Your task to perform on an android device: Open Yahoo.com Image 0: 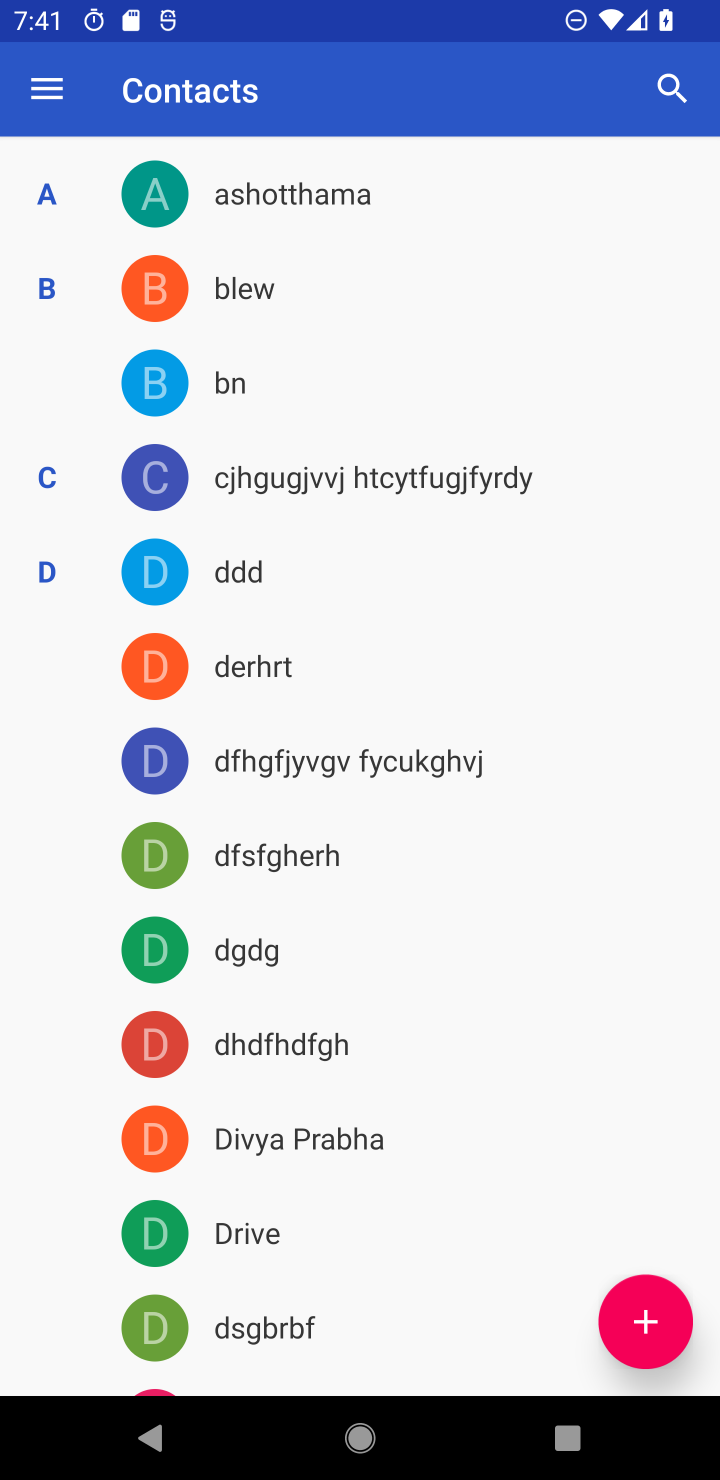
Step 0: press home button
Your task to perform on an android device: Open Yahoo.com Image 1: 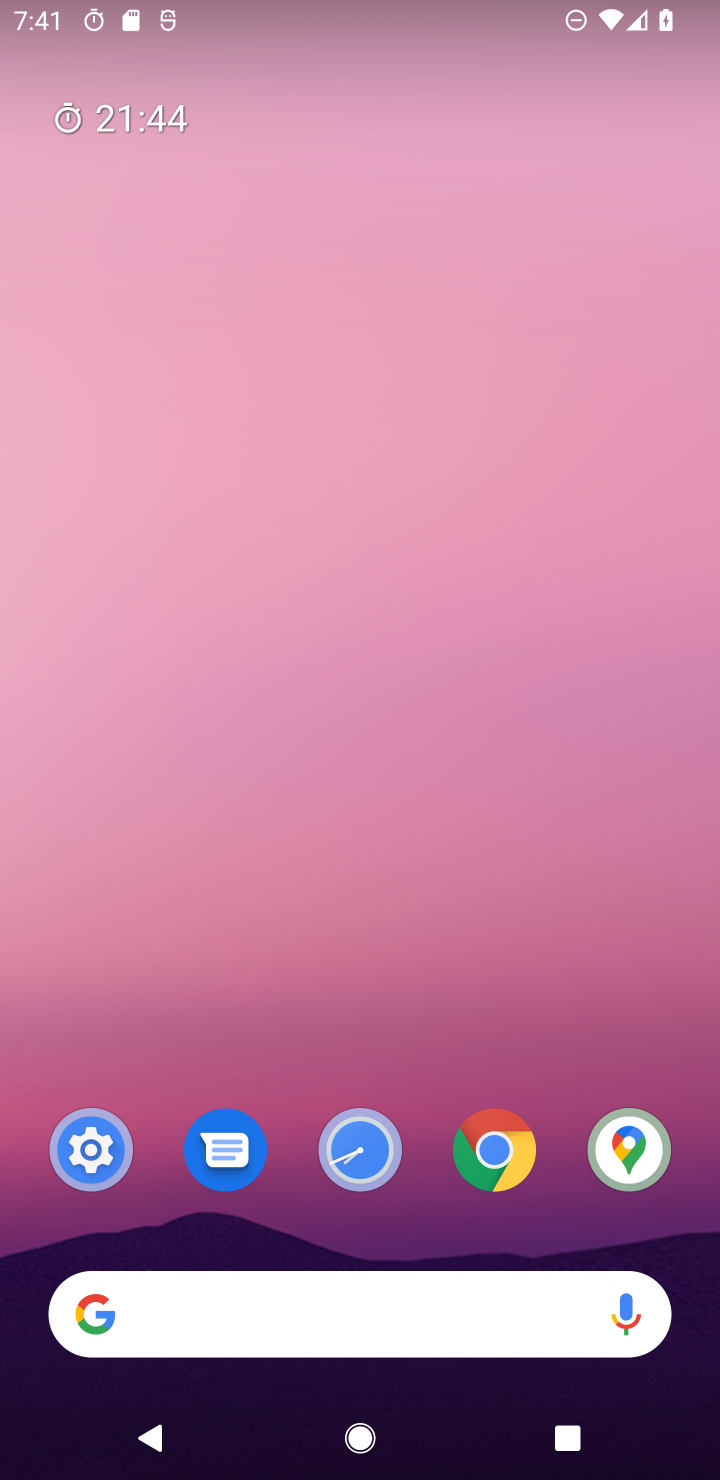
Step 1: drag from (340, 1314) to (658, 11)
Your task to perform on an android device: Open Yahoo.com Image 2: 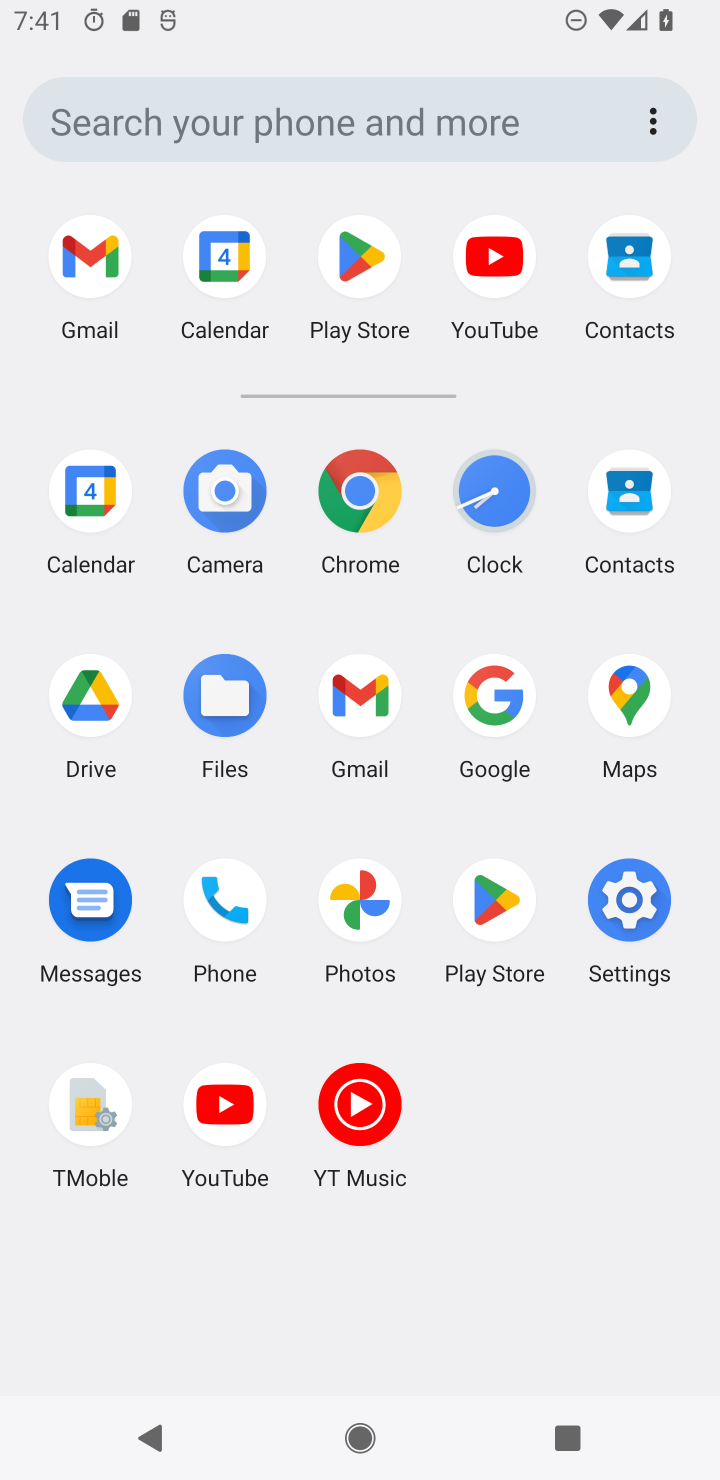
Step 2: click (362, 465)
Your task to perform on an android device: Open Yahoo.com Image 3: 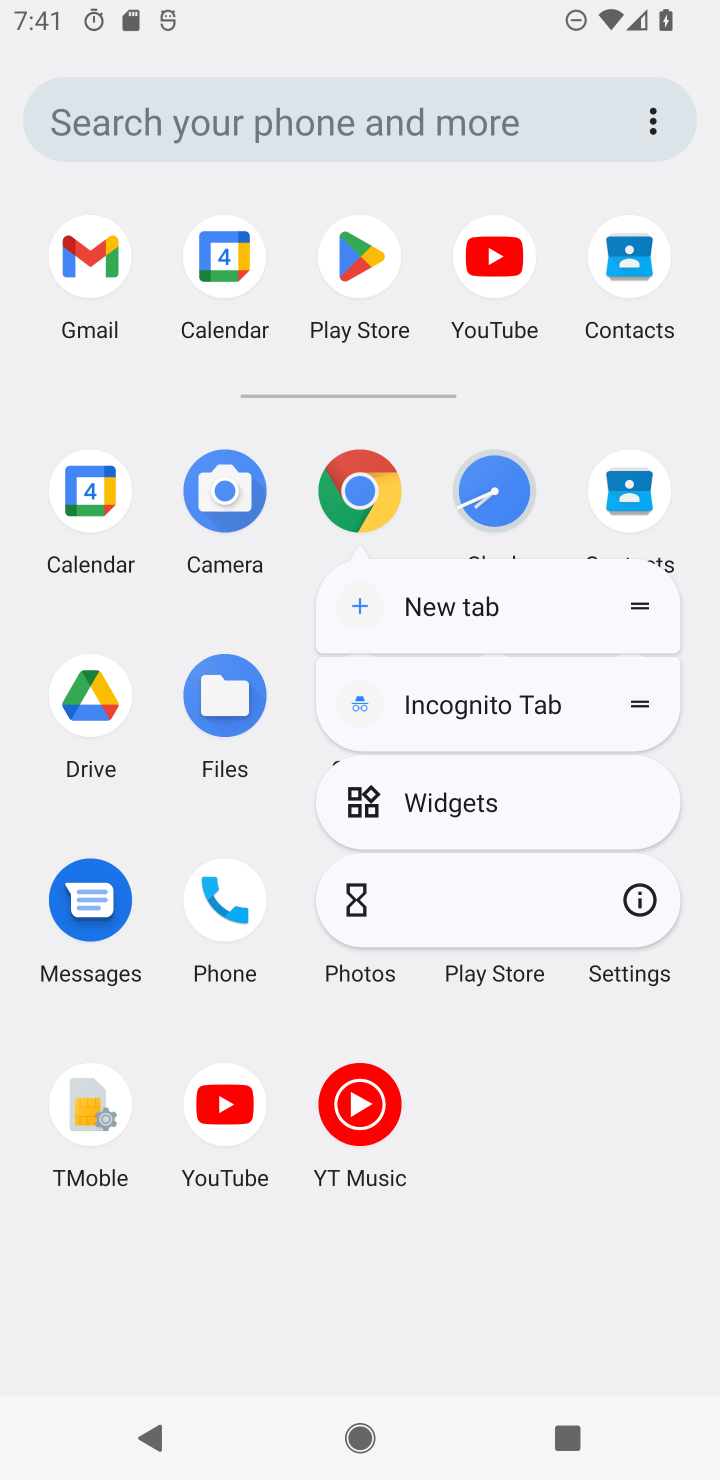
Step 3: click (359, 467)
Your task to perform on an android device: Open Yahoo.com Image 4: 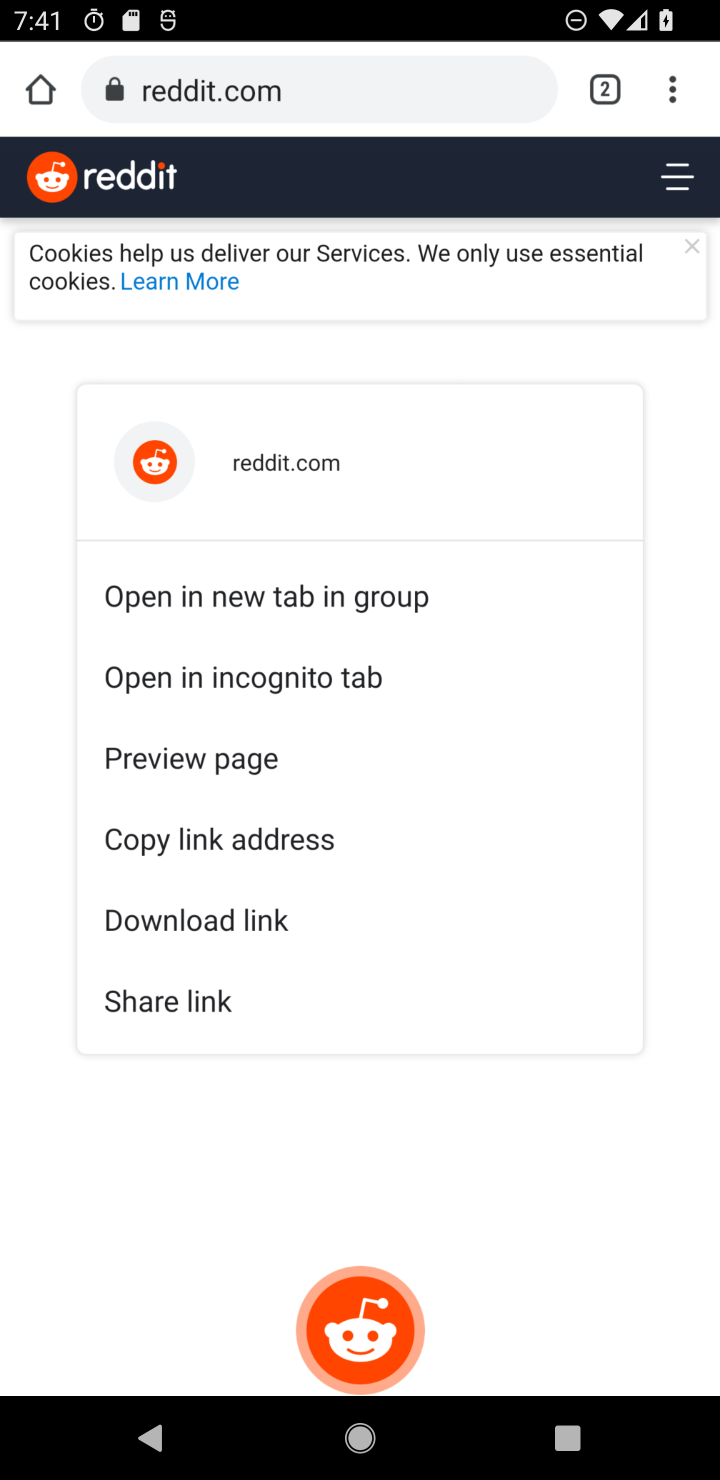
Step 4: click (359, 467)
Your task to perform on an android device: Open Yahoo.com Image 5: 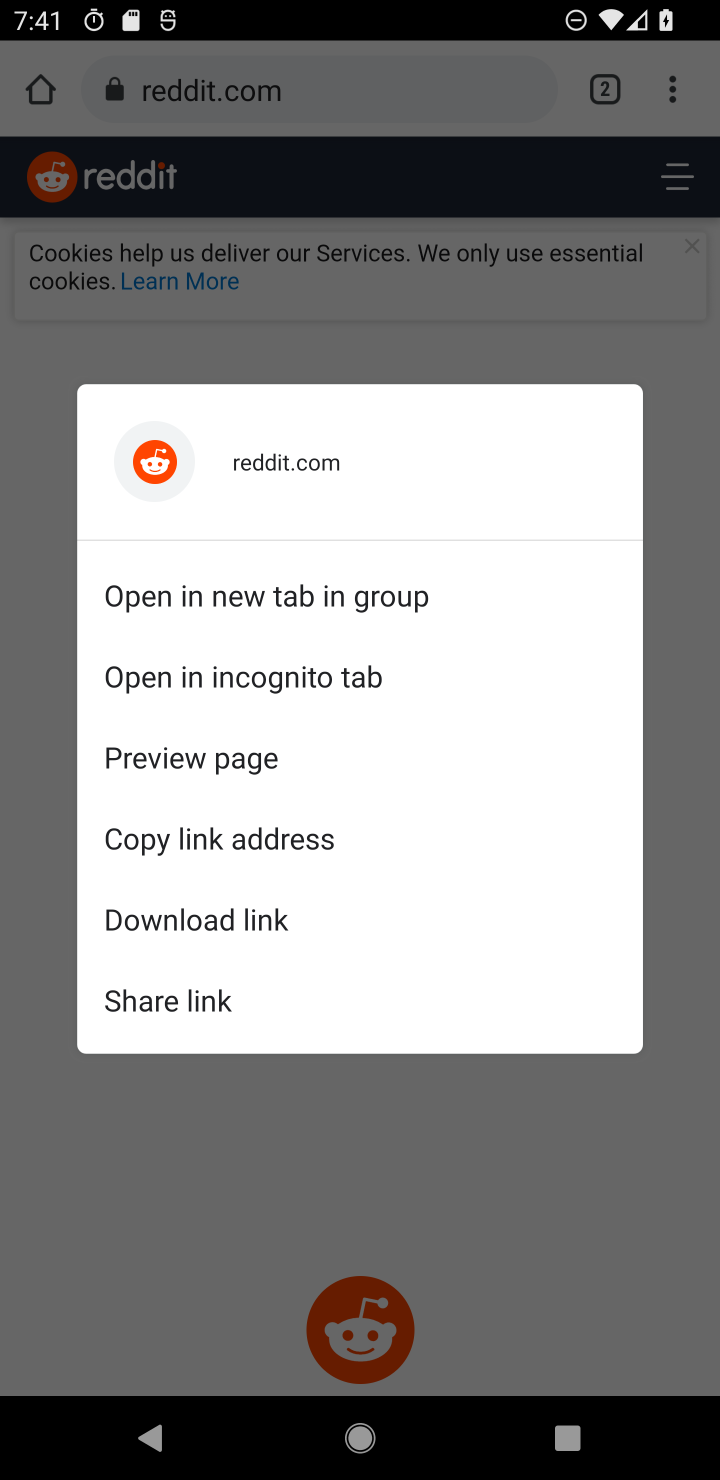
Step 5: click (492, 334)
Your task to perform on an android device: Open Yahoo.com Image 6: 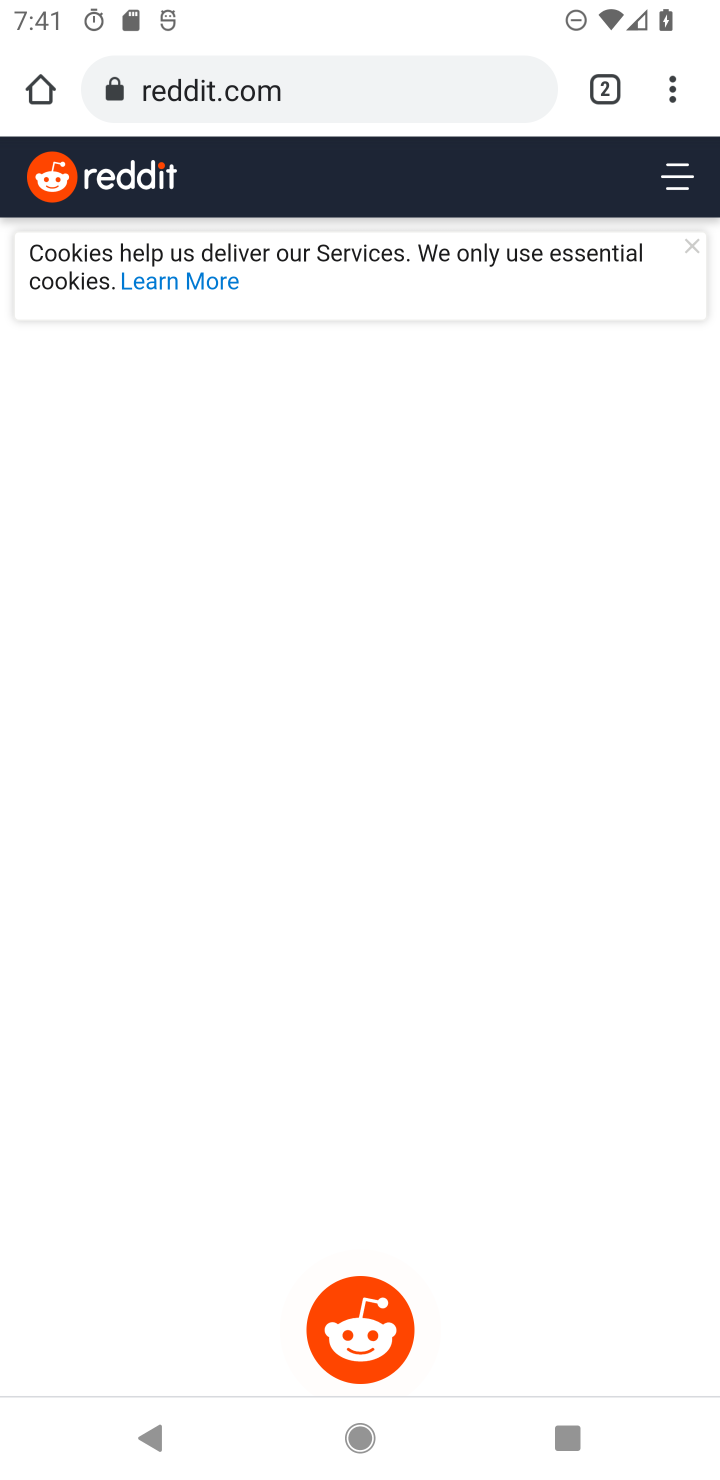
Step 6: click (669, 71)
Your task to perform on an android device: Open Yahoo.com Image 7: 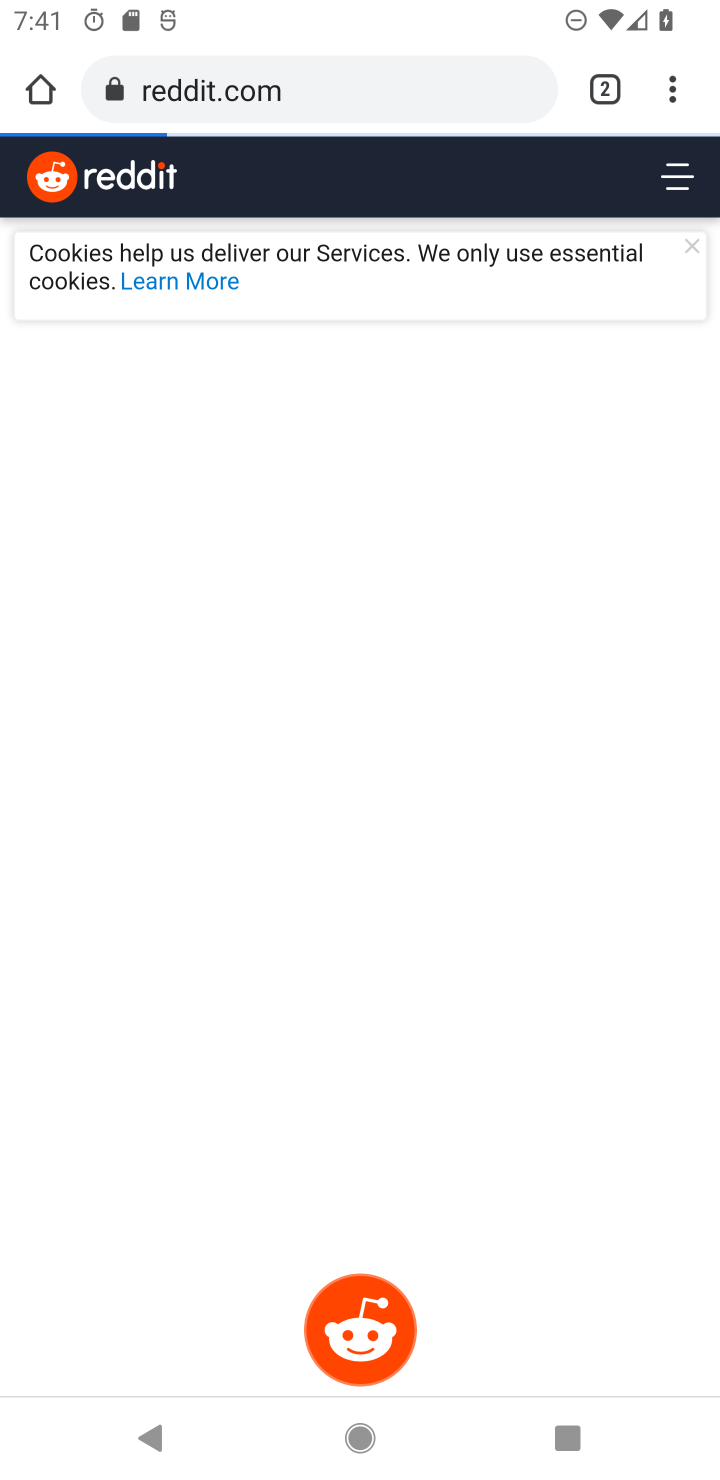
Step 7: click (669, 71)
Your task to perform on an android device: Open Yahoo.com Image 8: 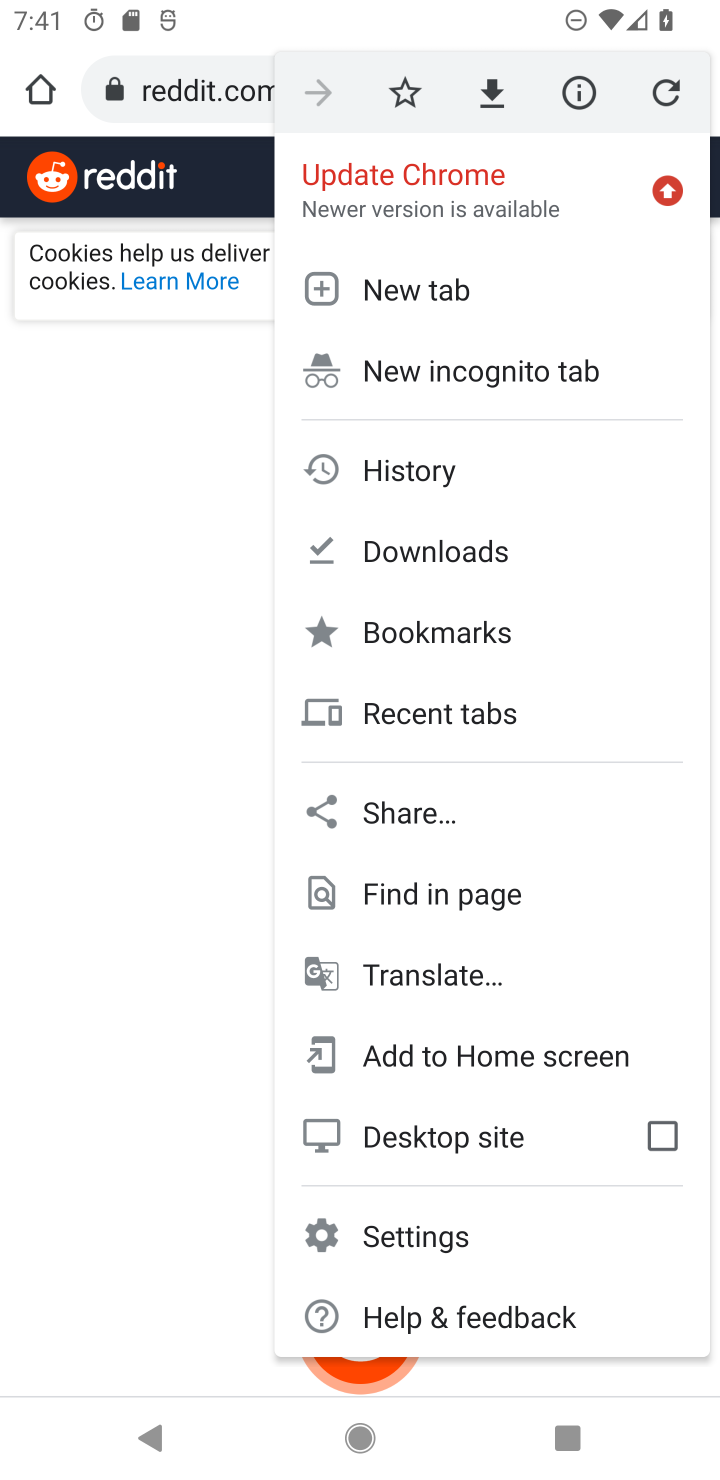
Step 8: click (390, 297)
Your task to perform on an android device: Open Yahoo.com Image 9: 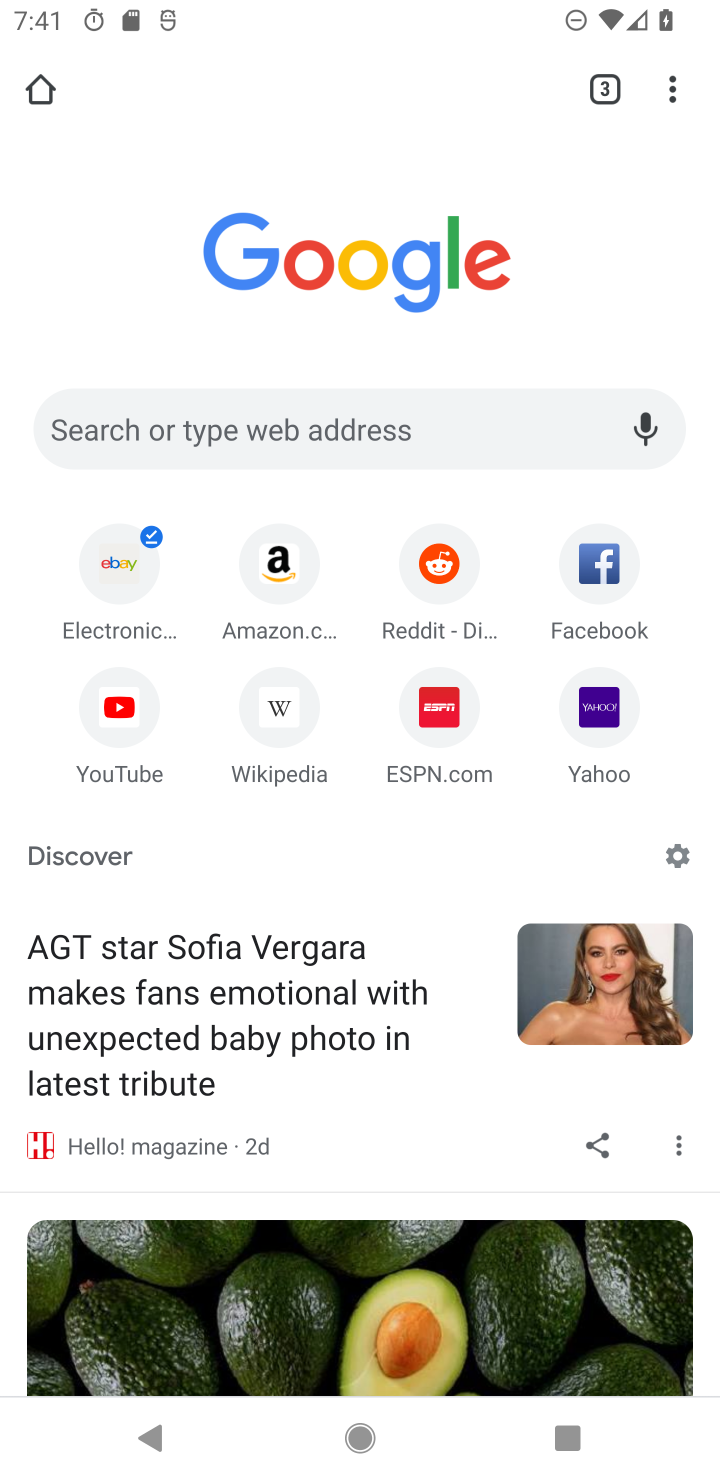
Step 9: click (608, 718)
Your task to perform on an android device: Open Yahoo.com Image 10: 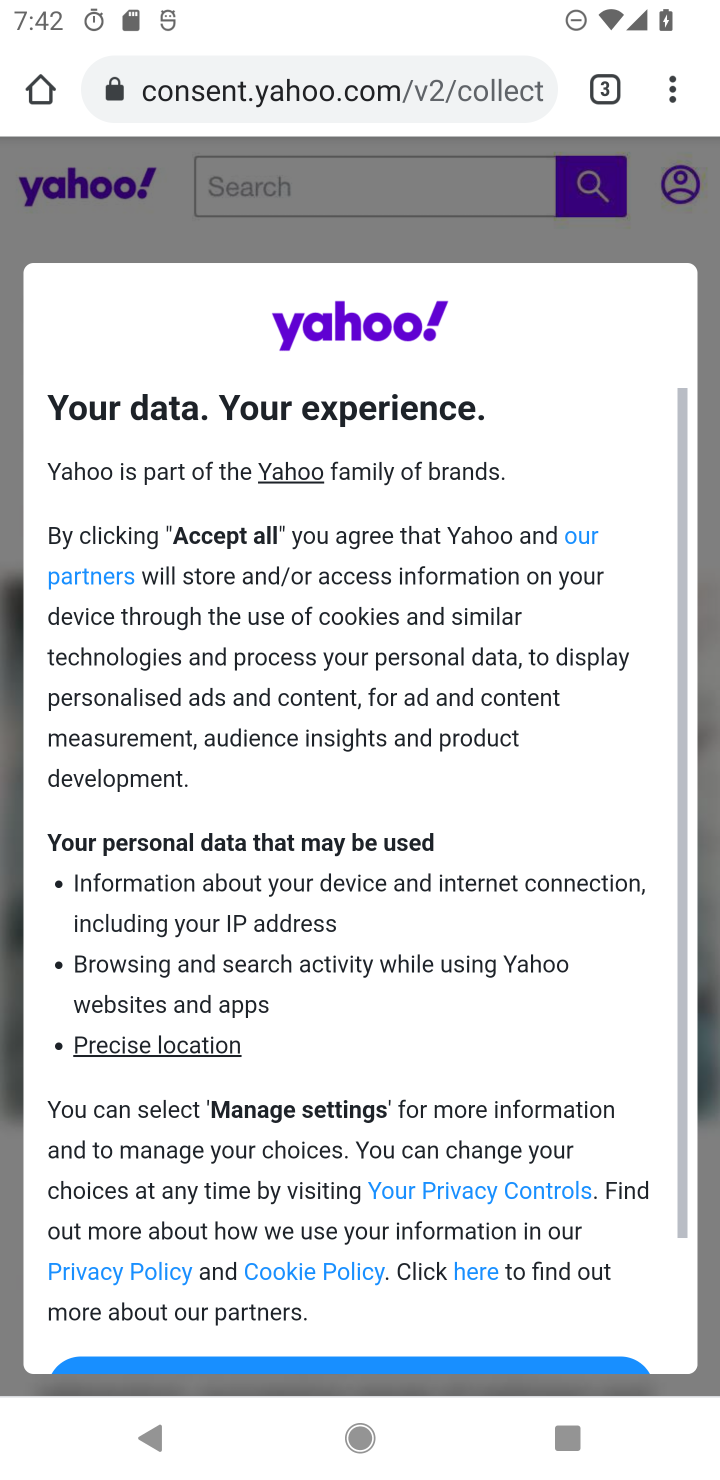
Step 10: task complete